Your task to perform on an android device: Find coffee shops on Maps Image 0: 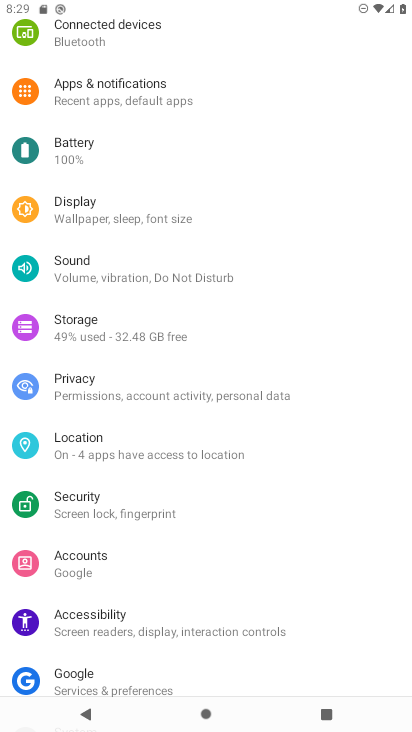
Step 0: press home button
Your task to perform on an android device: Find coffee shops on Maps Image 1: 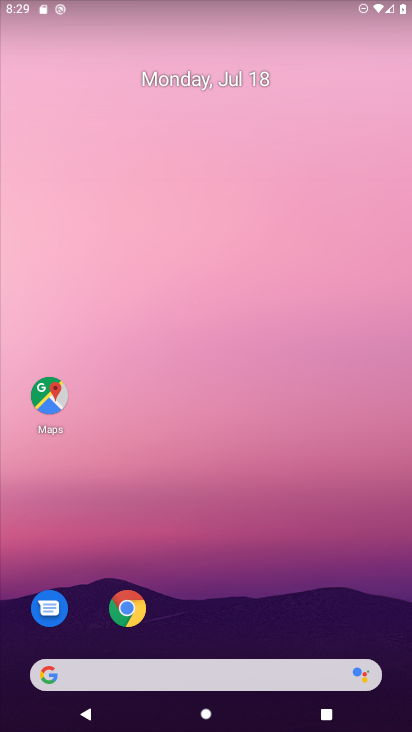
Step 1: click (39, 396)
Your task to perform on an android device: Find coffee shops on Maps Image 2: 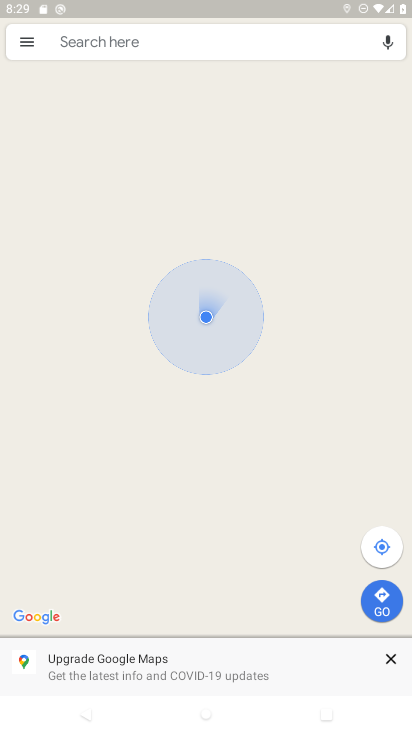
Step 2: click (94, 44)
Your task to perform on an android device: Find coffee shops on Maps Image 3: 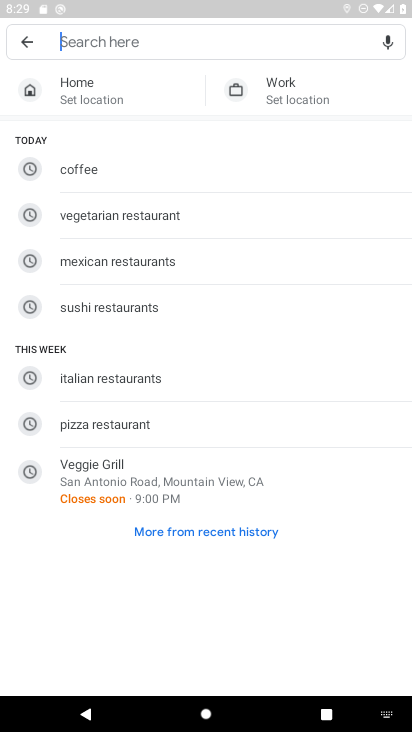
Step 3: type "coffee shops"
Your task to perform on an android device: Find coffee shops on Maps Image 4: 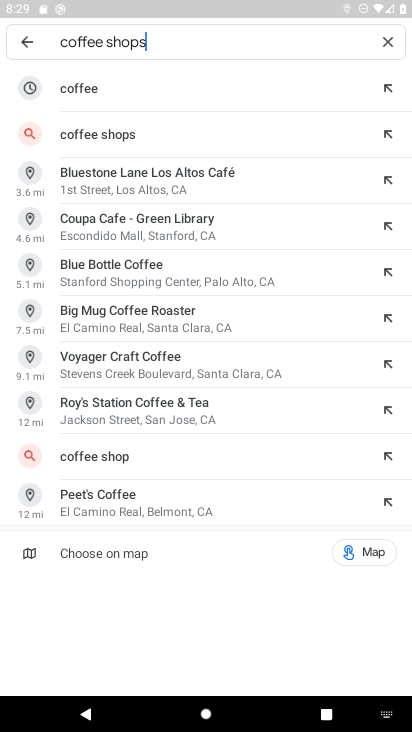
Step 4: click (139, 138)
Your task to perform on an android device: Find coffee shops on Maps Image 5: 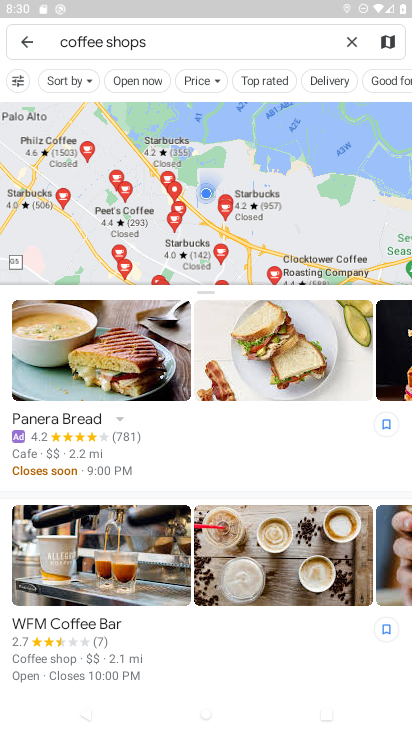
Step 5: task complete